Your task to perform on an android device: Open the map Image 0: 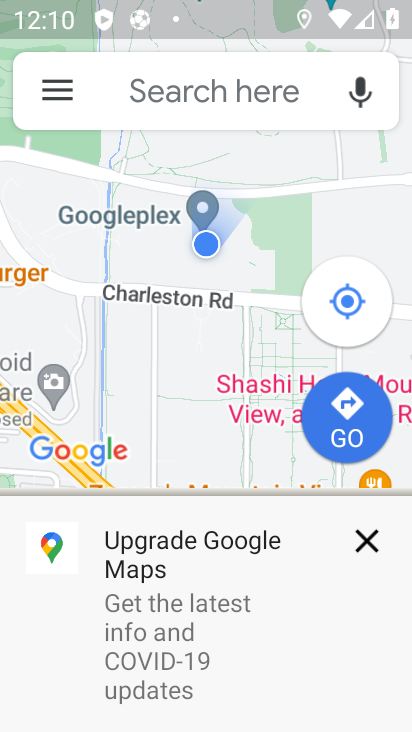
Step 0: press home button
Your task to perform on an android device: Open the map Image 1: 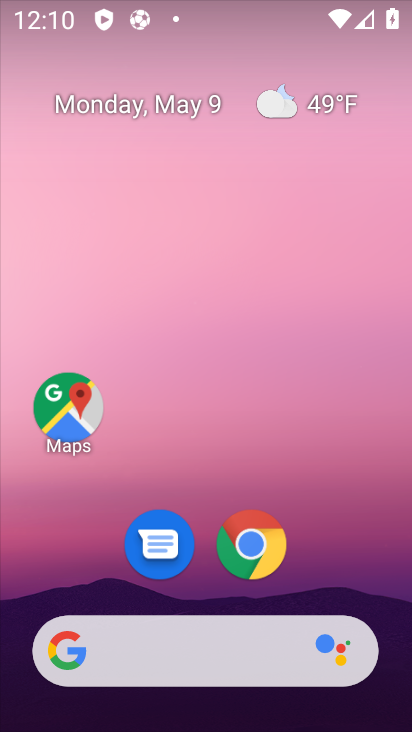
Step 1: drag from (323, 616) to (360, 18)
Your task to perform on an android device: Open the map Image 2: 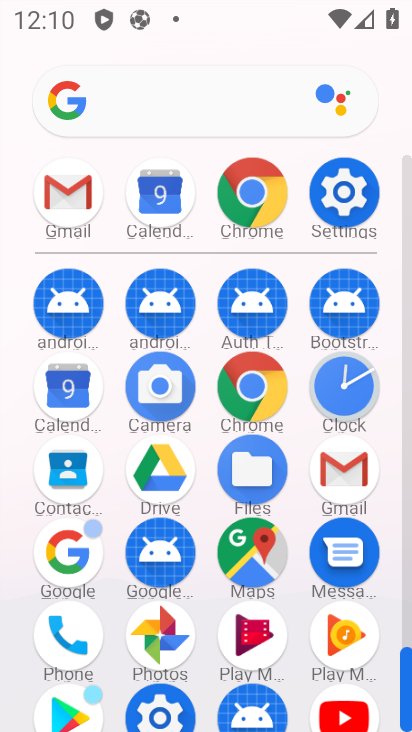
Step 2: click (257, 574)
Your task to perform on an android device: Open the map Image 3: 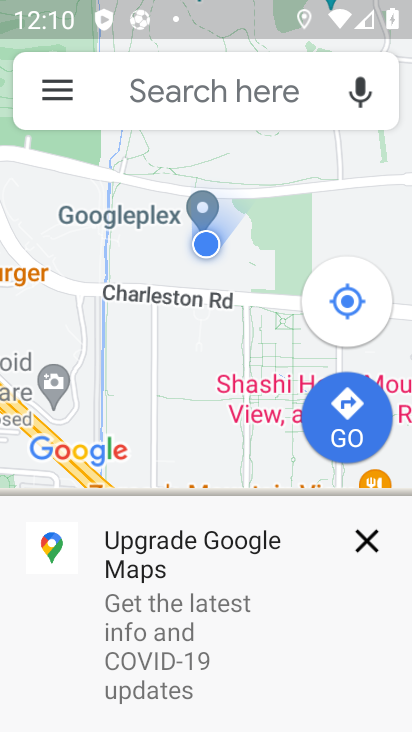
Step 3: task complete